Your task to perform on an android device: Go to settings Image 0: 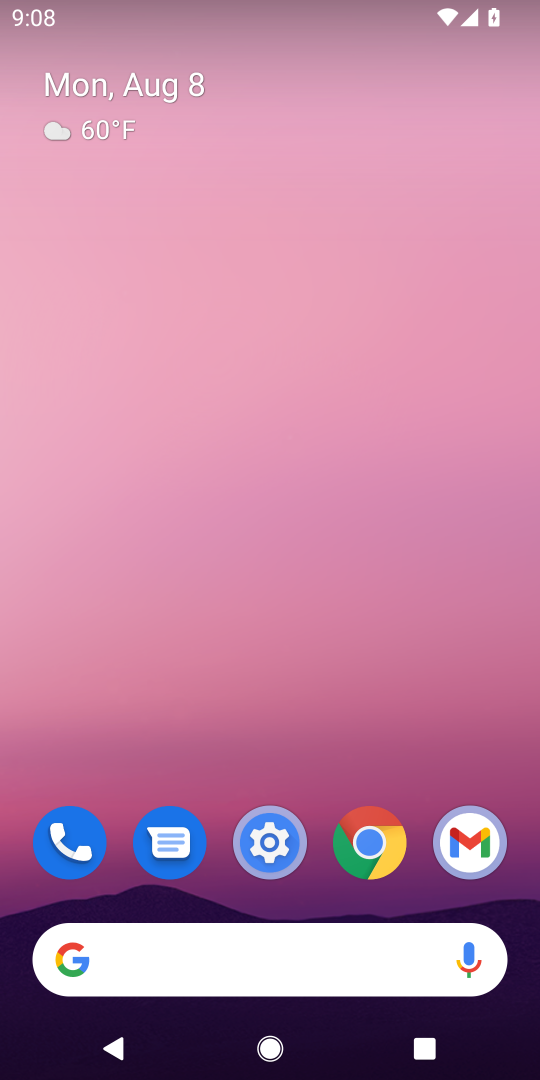
Step 0: click (283, 824)
Your task to perform on an android device: Go to settings Image 1: 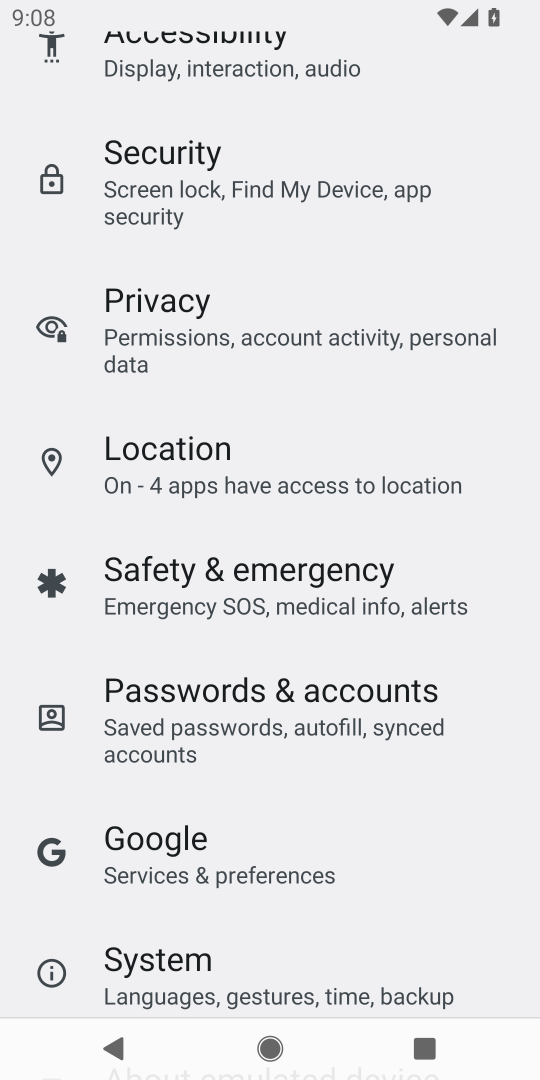
Step 1: task complete